Your task to perform on an android device: turn on sleep mode Image 0: 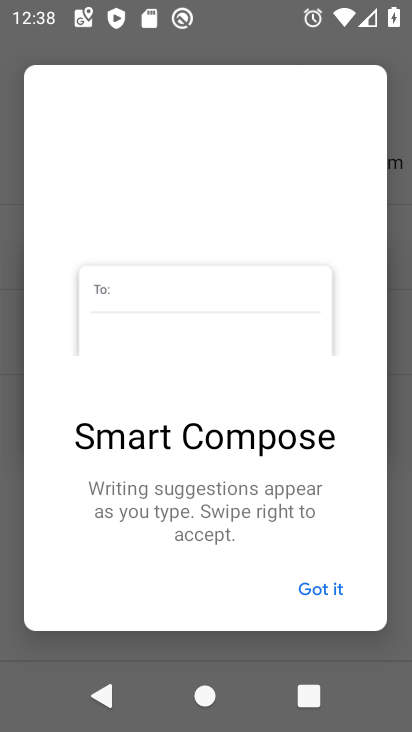
Step 0: click (353, 531)
Your task to perform on an android device: turn on sleep mode Image 1: 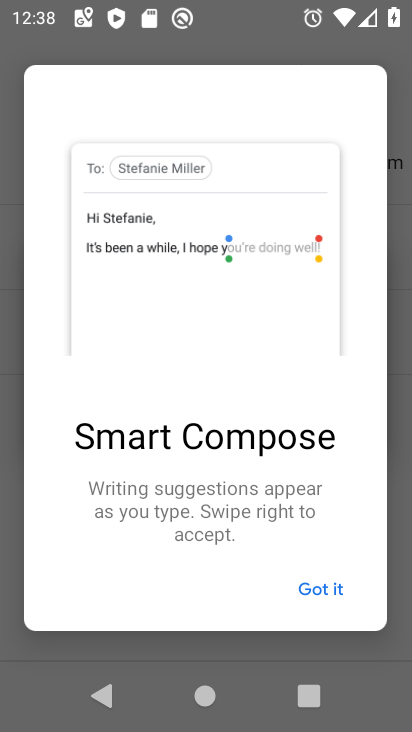
Step 1: press home button
Your task to perform on an android device: turn on sleep mode Image 2: 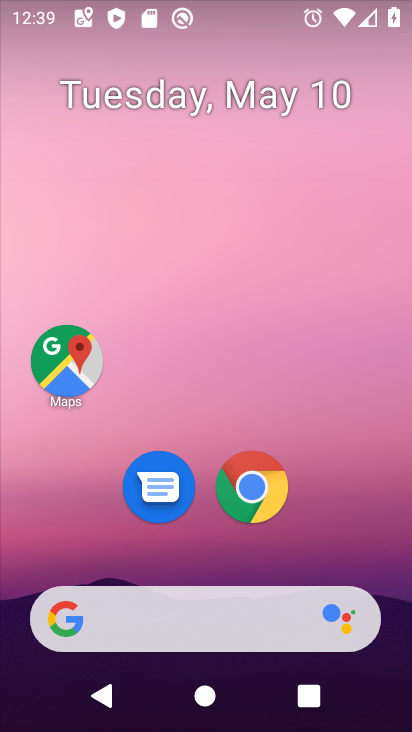
Step 2: drag from (315, 549) to (285, 18)
Your task to perform on an android device: turn on sleep mode Image 3: 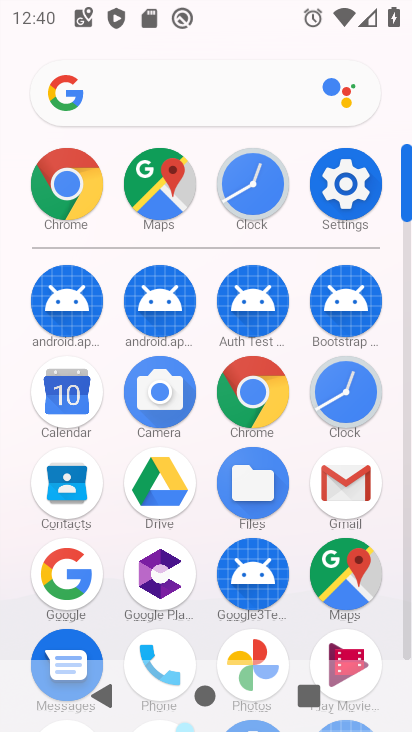
Step 3: click (329, 180)
Your task to perform on an android device: turn on sleep mode Image 4: 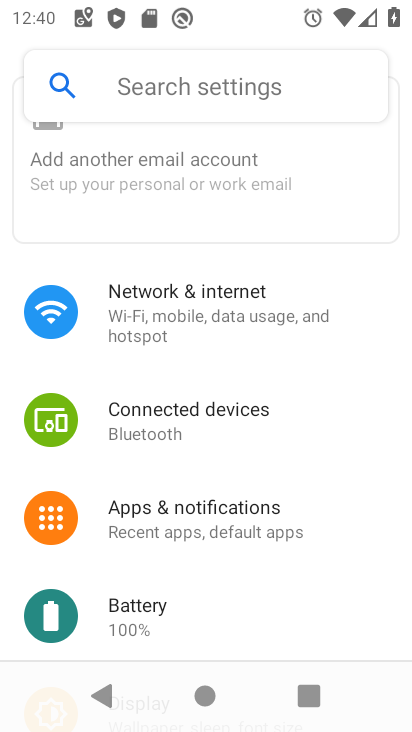
Step 4: click (205, 526)
Your task to perform on an android device: turn on sleep mode Image 5: 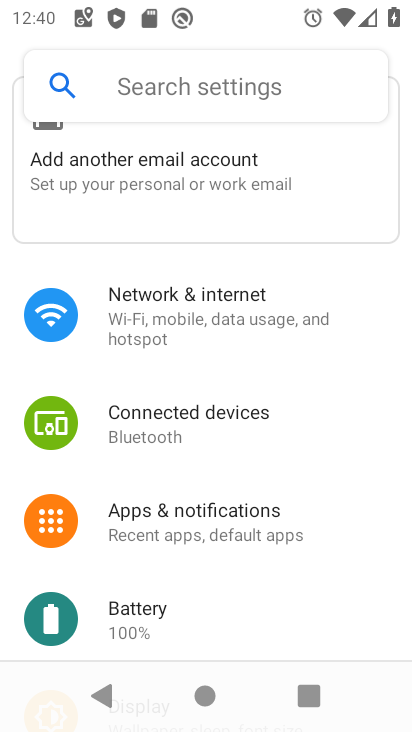
Step 5: task complete